Your task to perform on an android device: change keyboard looks Image 0: 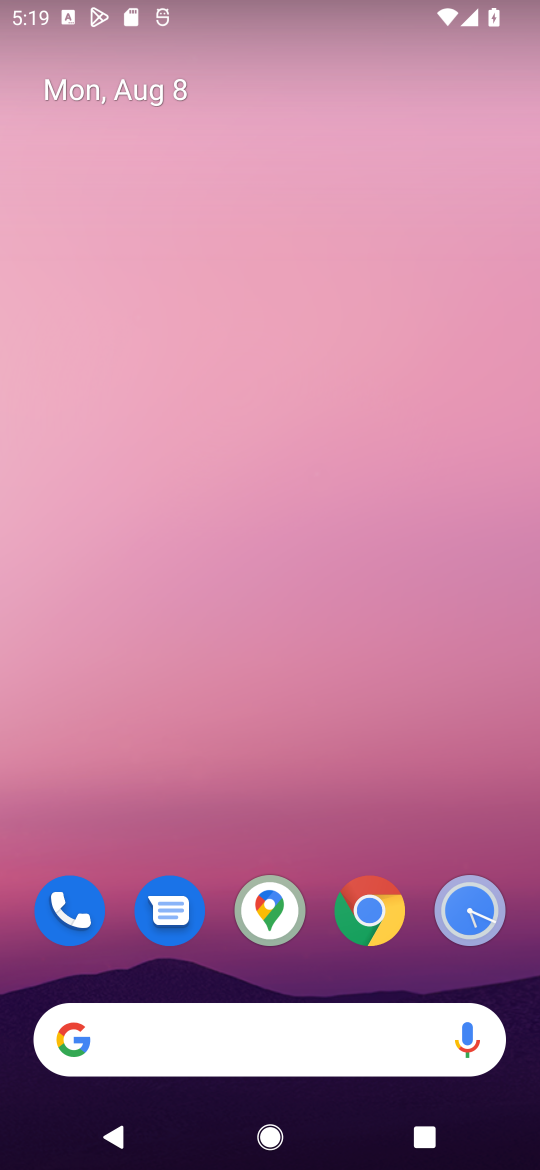
Step 0: drag from (281, 832) to (273, 118)
Your task to perform on an android device: change keyboard looks Image 1: 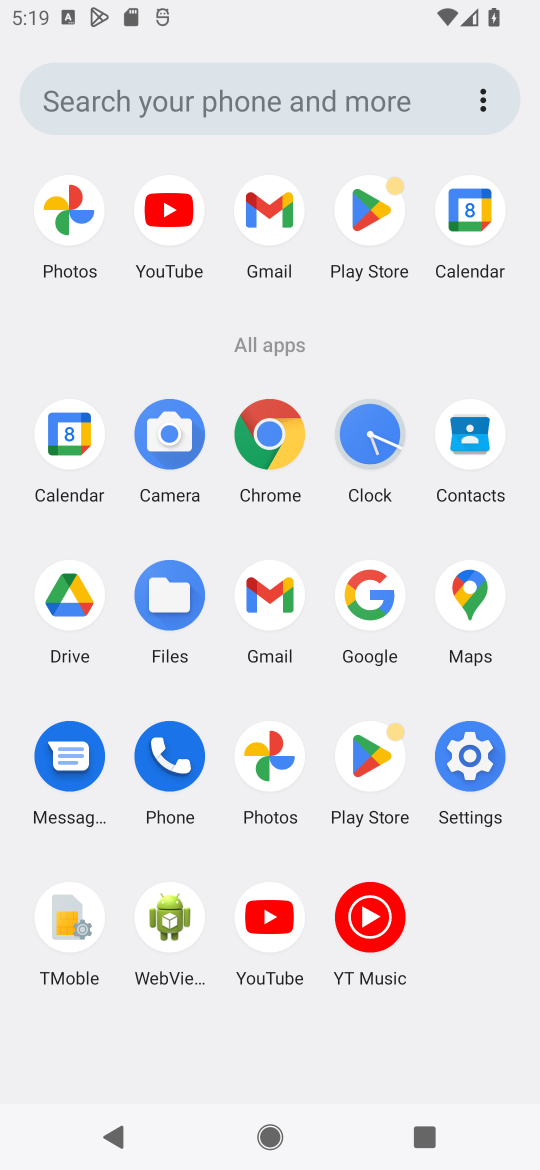
Step 1: click (486, 745)
Your task to perform on an android device: change keyboard looks Image 2: 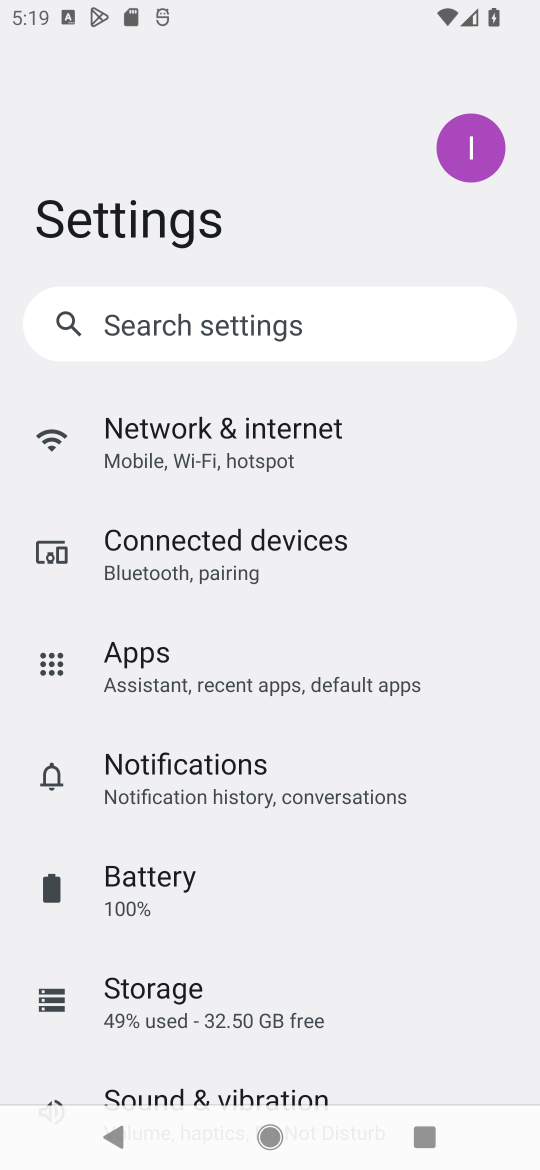
Step 2: click (223, 332)
Your task to perform on an android device: change keyboard looks Image 3: 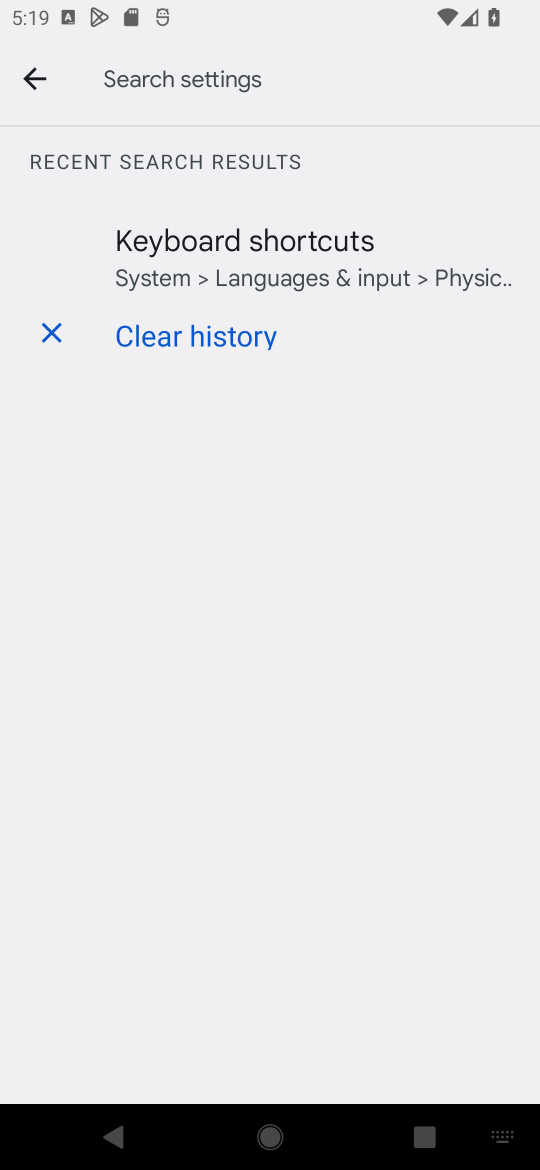
Step 3: click (171, 283)
Your task to perform on an android device: change keyboard looks Image 4: 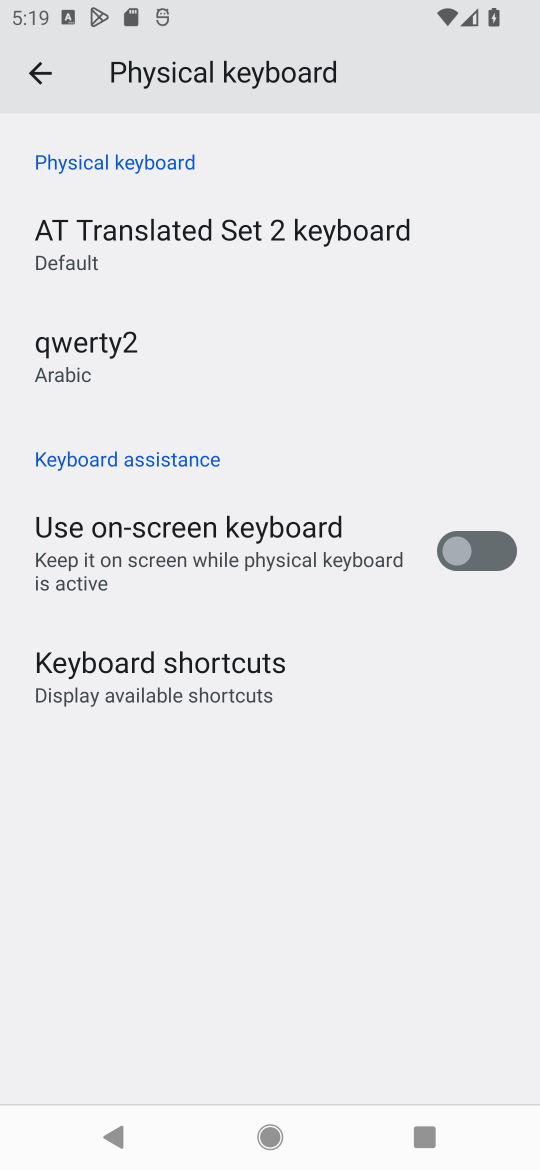
Step 4: click (172, 244)
Your task to perform on an android device: change keyboard looks Image 5: 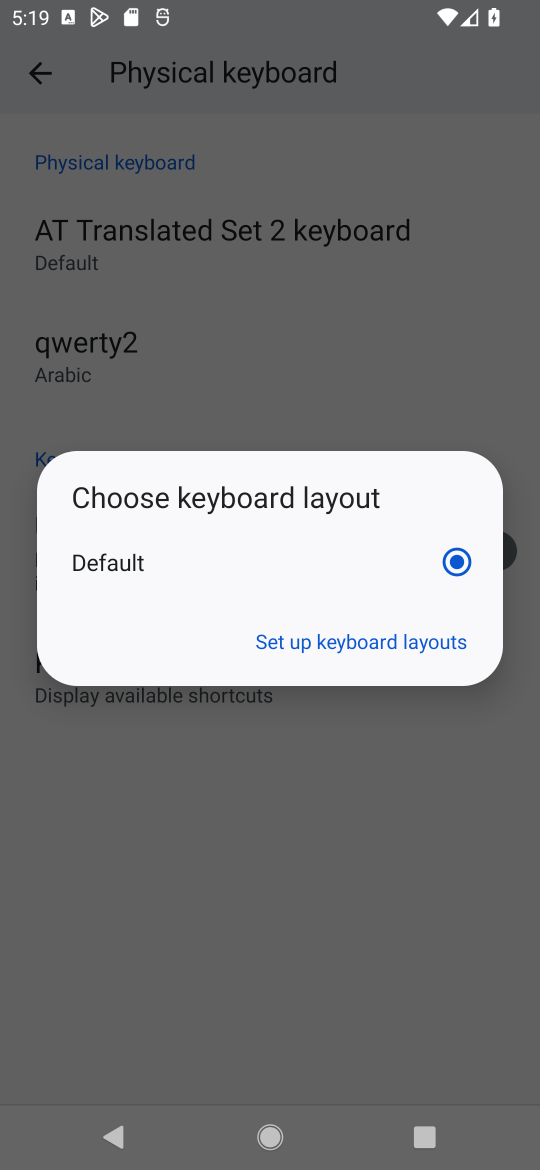
Step 5: click (343, 645)
Your task to perform on an android device: change keyboard looks Image 6: 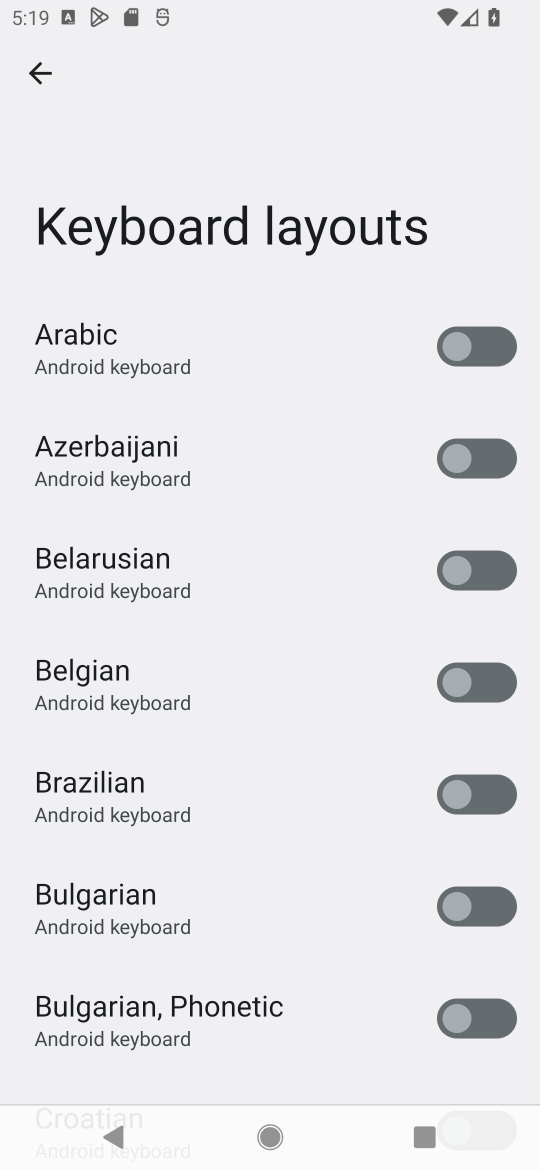
Step 6: click (454, 679)
Your task to perform on an android device: change keyboard looks Image 7: 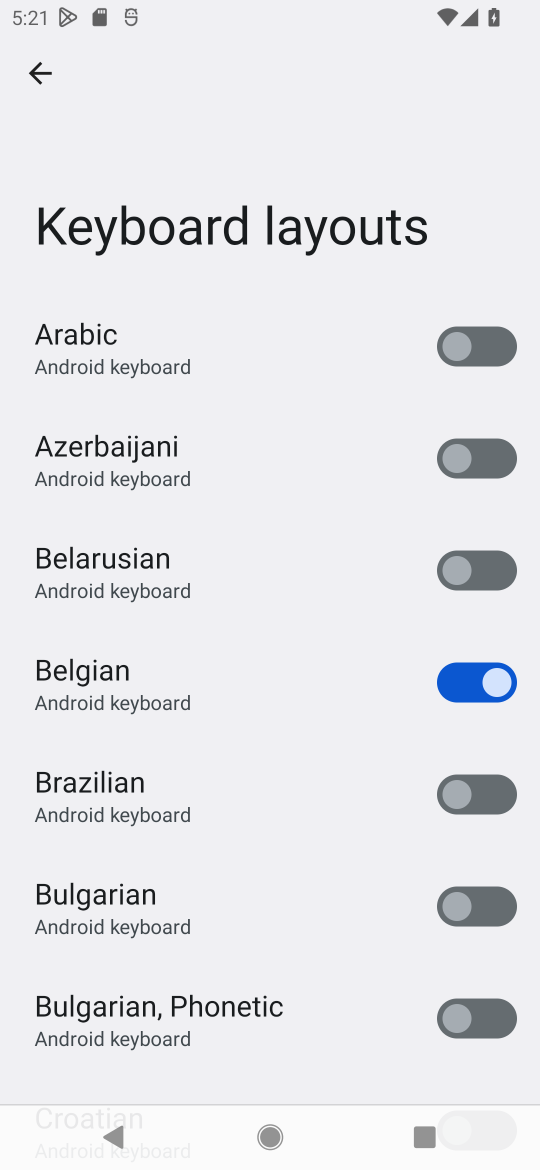
Step 7: task complete